Your task to perform on an android device: check battery use Image 0: 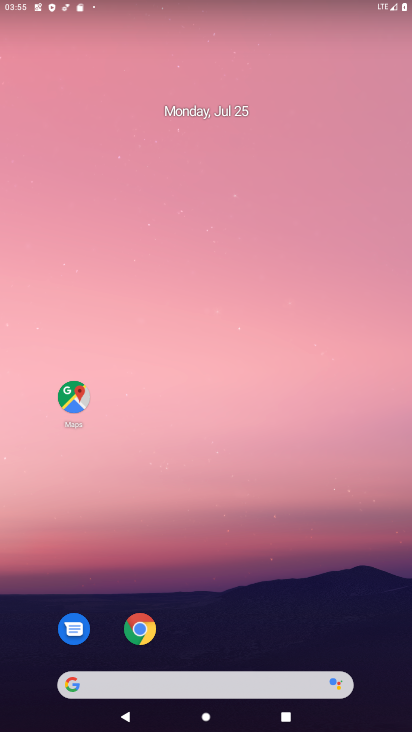
Step 0: drag from (265, 648) to (342, 2)
Your task to perform on an android device: check battery use Image 1: 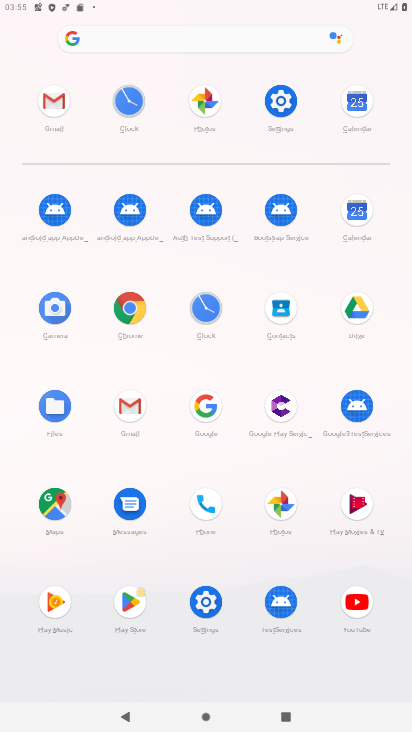
Step 1: click (289, 115)
Your task to perform on an android device: check battery use Image 2: 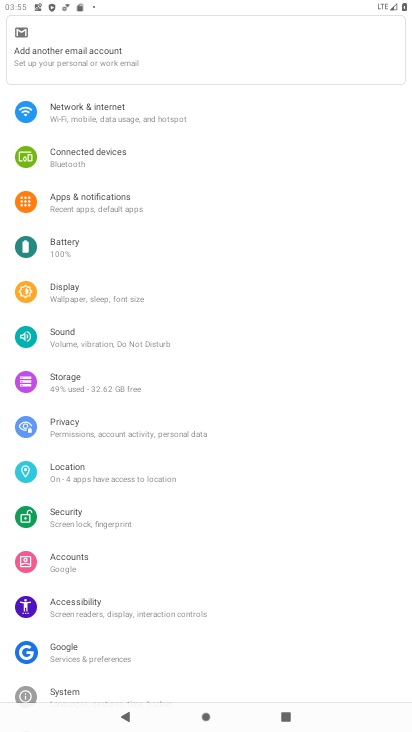
Step 2: click (60, 254)
Your task to perform on an android device: check battery use Image 3: 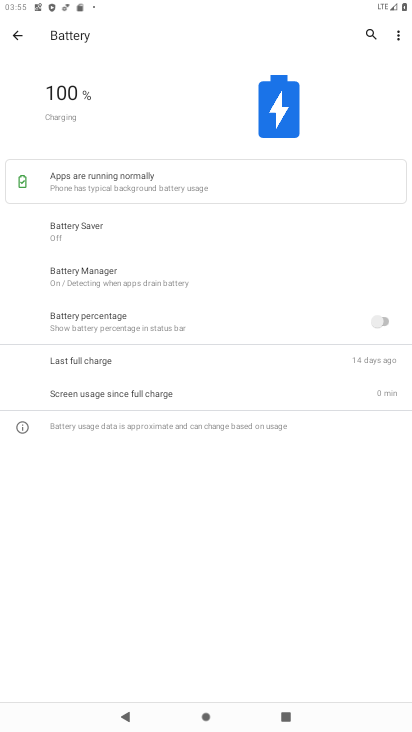
Step 3: click (395, 41)
Your task to perform on an android device: check battery use Image 4: 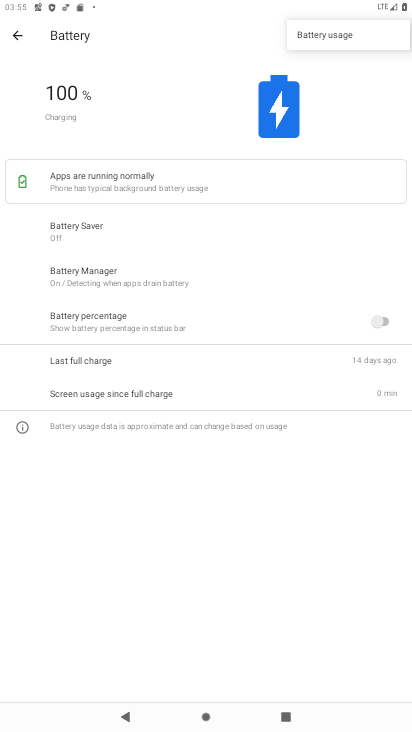
Step 4: click (329, 39)
Your task to perform on an android device: check battery use Image 5: 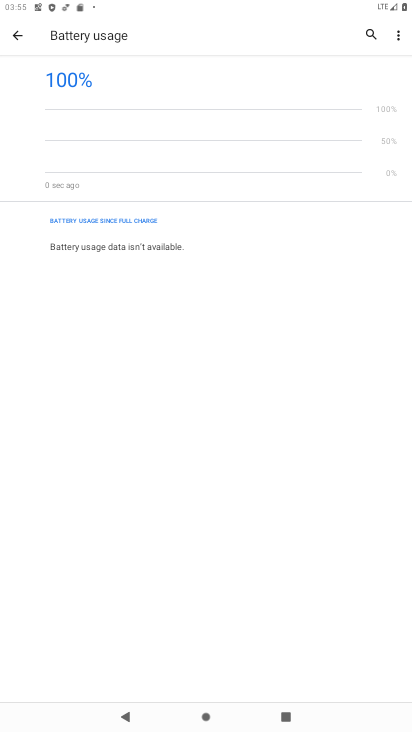
Step 5: task complete